Your task to perform on an android device: Is it going to rain this weekend? Image 0: 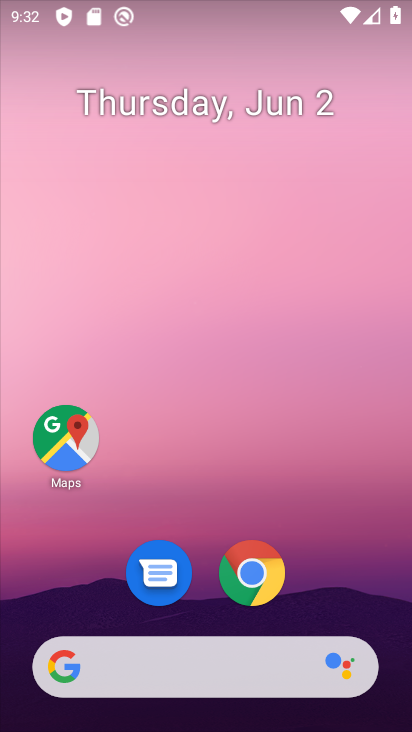
Step 0: click (210, 666)
Your task to perform on an android device: Is it going to rain this weekend? Image 1: 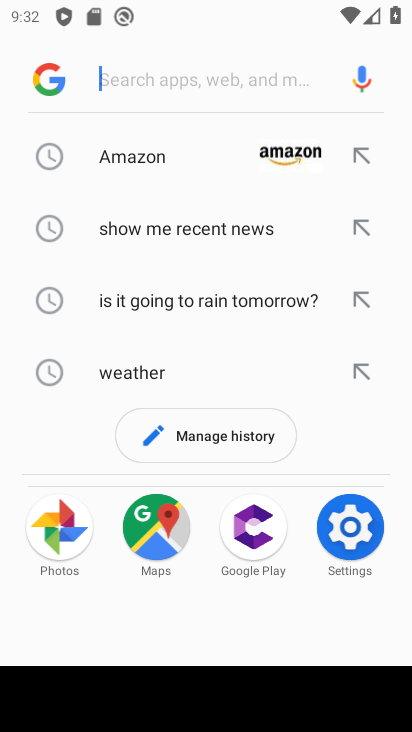
Step 1: click (206, 660)
Your task to perform on an android device: Is it going to rain this weekend? Image 2: 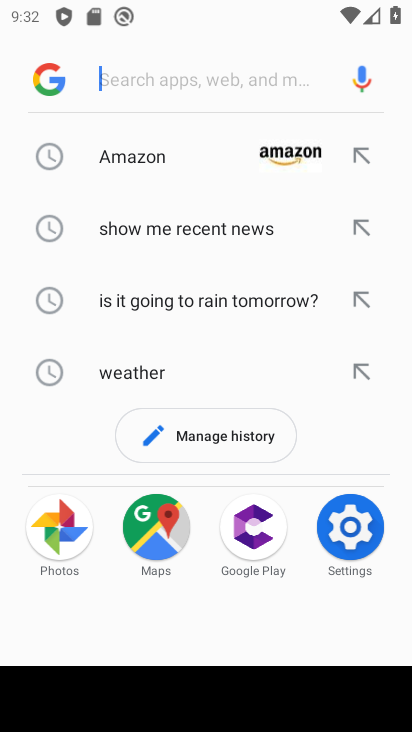
Step 2: click (206, 660)
Your task to perform on an android device: Is it going to rain this weekend? Image 3: 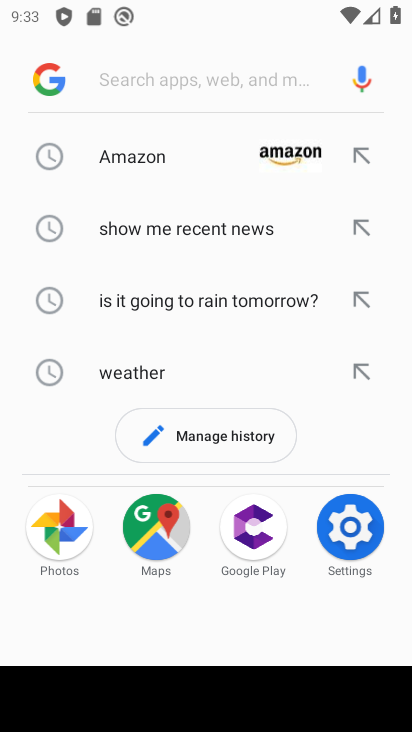
Step 3: click (204, 651)
Your task to perform on an android device: Is it going to rain this weekend? Image 4: 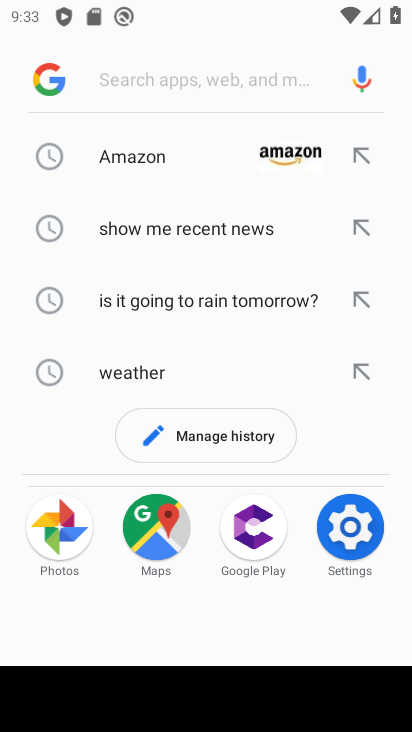
Step 4: click (146, 638)
Your task to perform on an android device: Is it going to rain this weekend? Image 5: 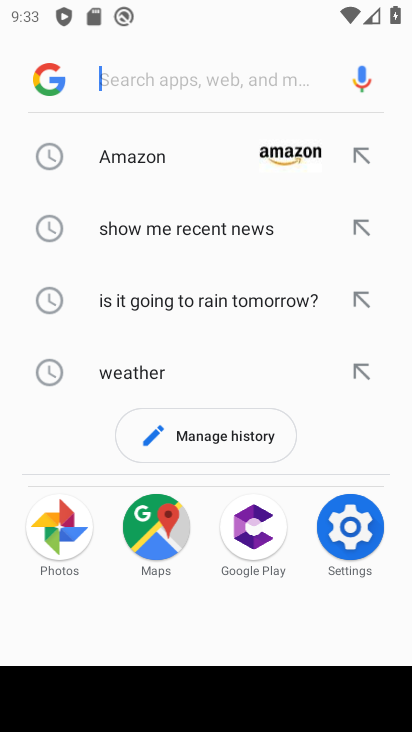
Step 5: click (129, 372)
Your task to perform on an android device: Is it going to rain this weekend? Image 6: 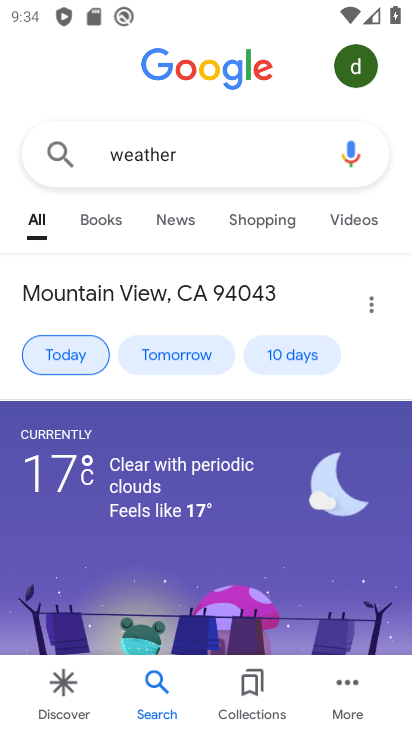
Step 6: drag from (104, 640) to (145, 98)
Your task to perform on an android device: Is it going to rain this weekend? Image 7: 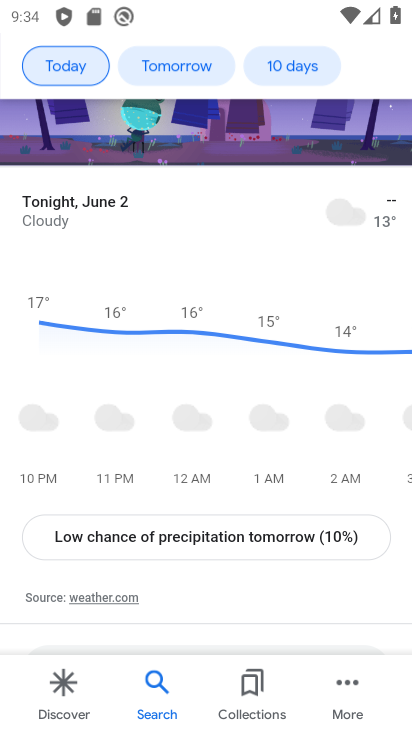
Step 7: click (277, 62)
Your task to perform on an android device: Is it going to rain this weekend? Image 8: 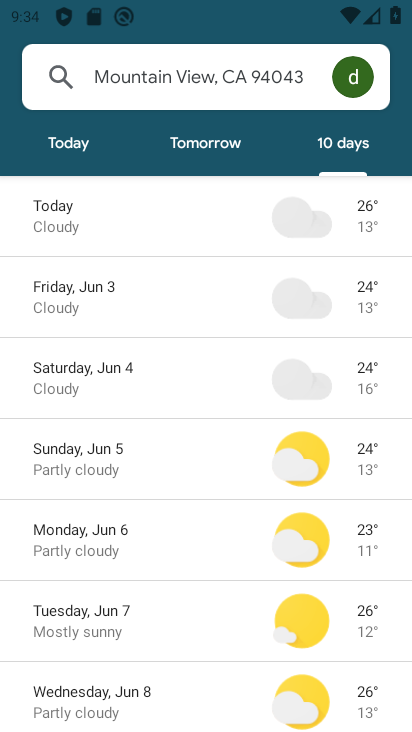
Step 8: task complete